Your task to perform on an android device: Search for macbook on target, select the first entry, add it to the cart, then select checkout. Image 0: 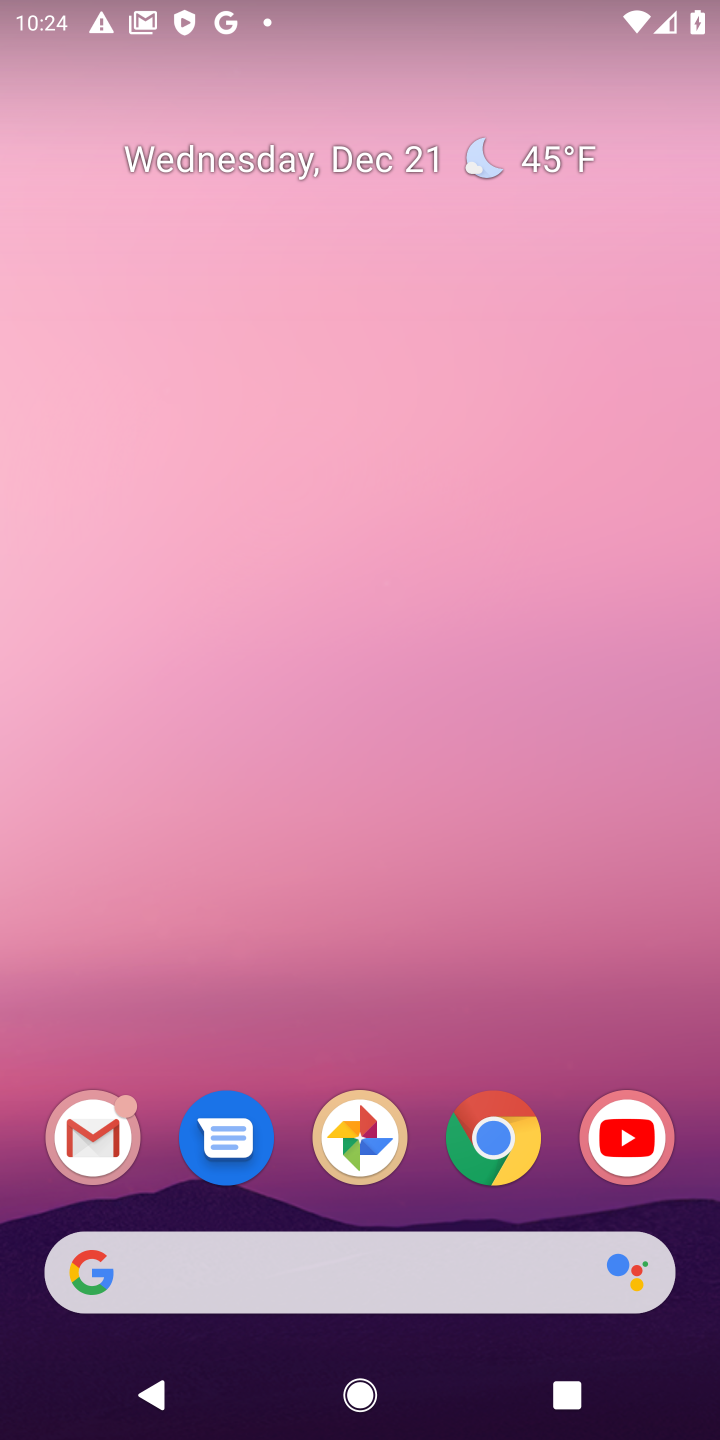
Step 0: click (489, 1152)
Your task to perform on an android device: Search for macbook on target, select the first entry, add it to the cart, then select checkout. Image 1: 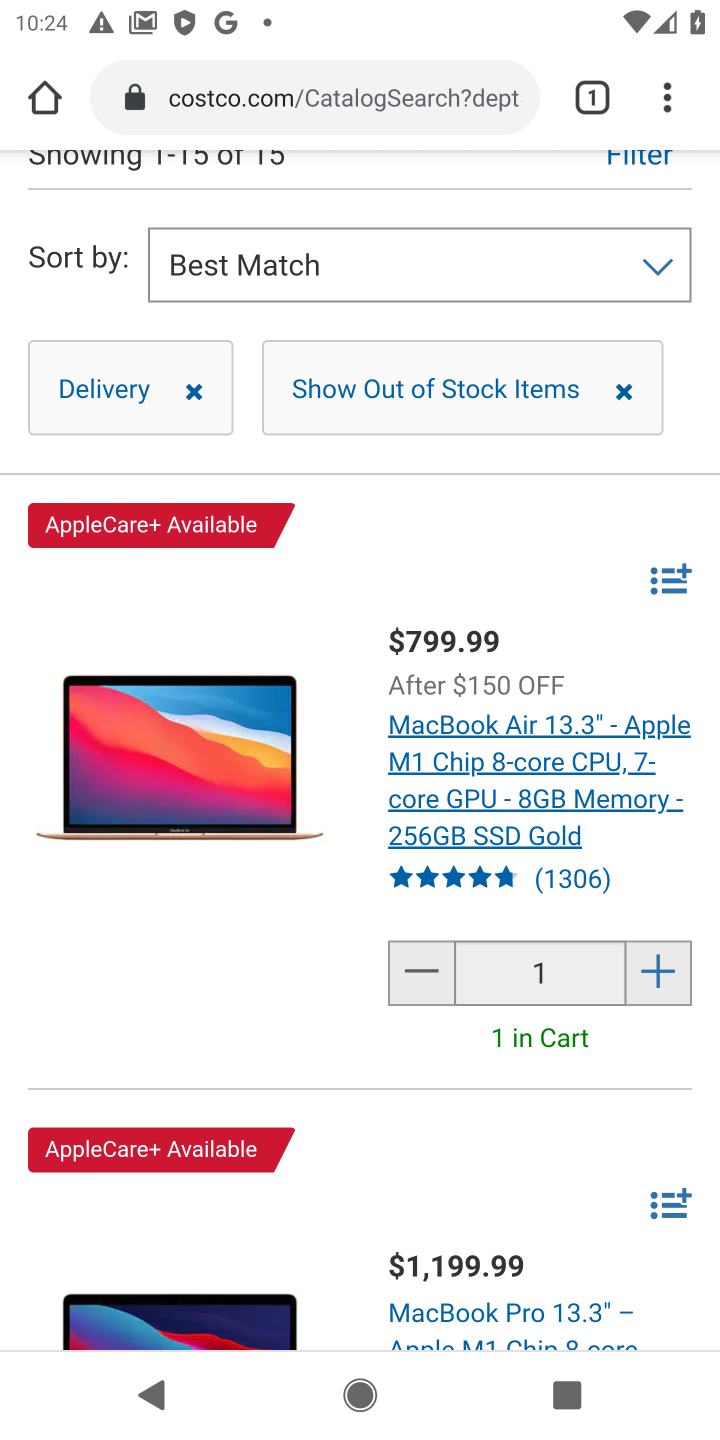
Step 1: click (255, 108)
Your task to perform on an android device: Search for macbook on target, select the first entry, add it to the cart, then select checkout. Image 2: 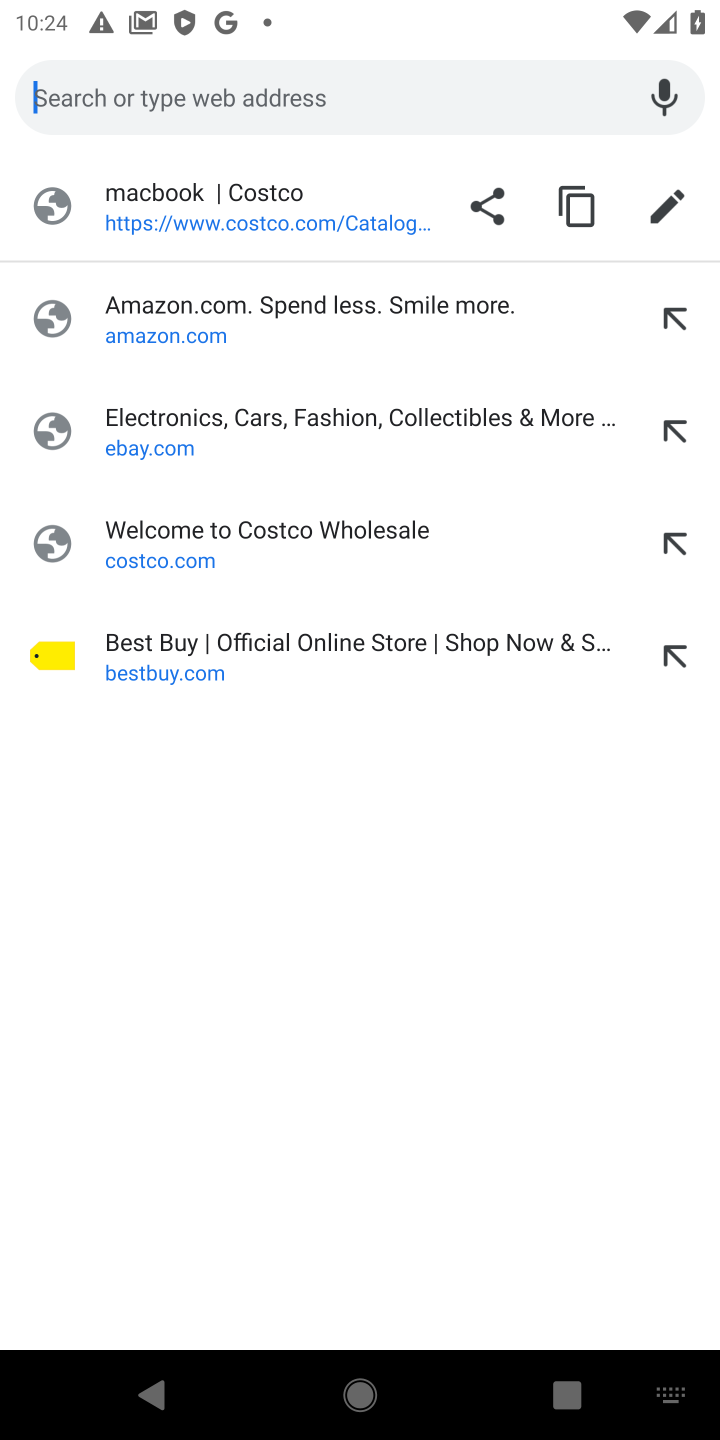
Step 2: click (181, 103)
Your task to perform on an android device: Search for macbook on target, select the first entry, add it to the cart, then select checkout. Image 3: 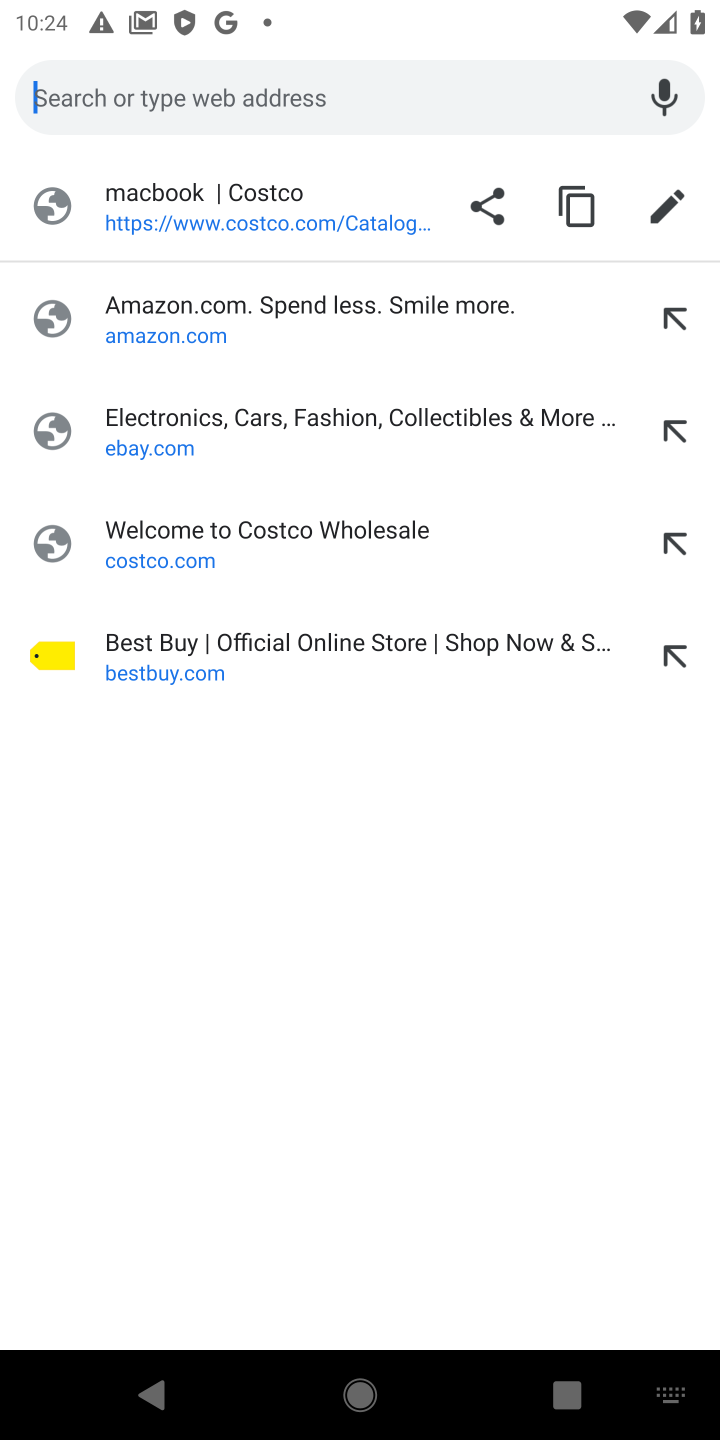
Step 3: type "target.com"
Your task to perform on an android device: Search for macbook on target, select the first entry, add it to the cart, then select checkout. Image 4: 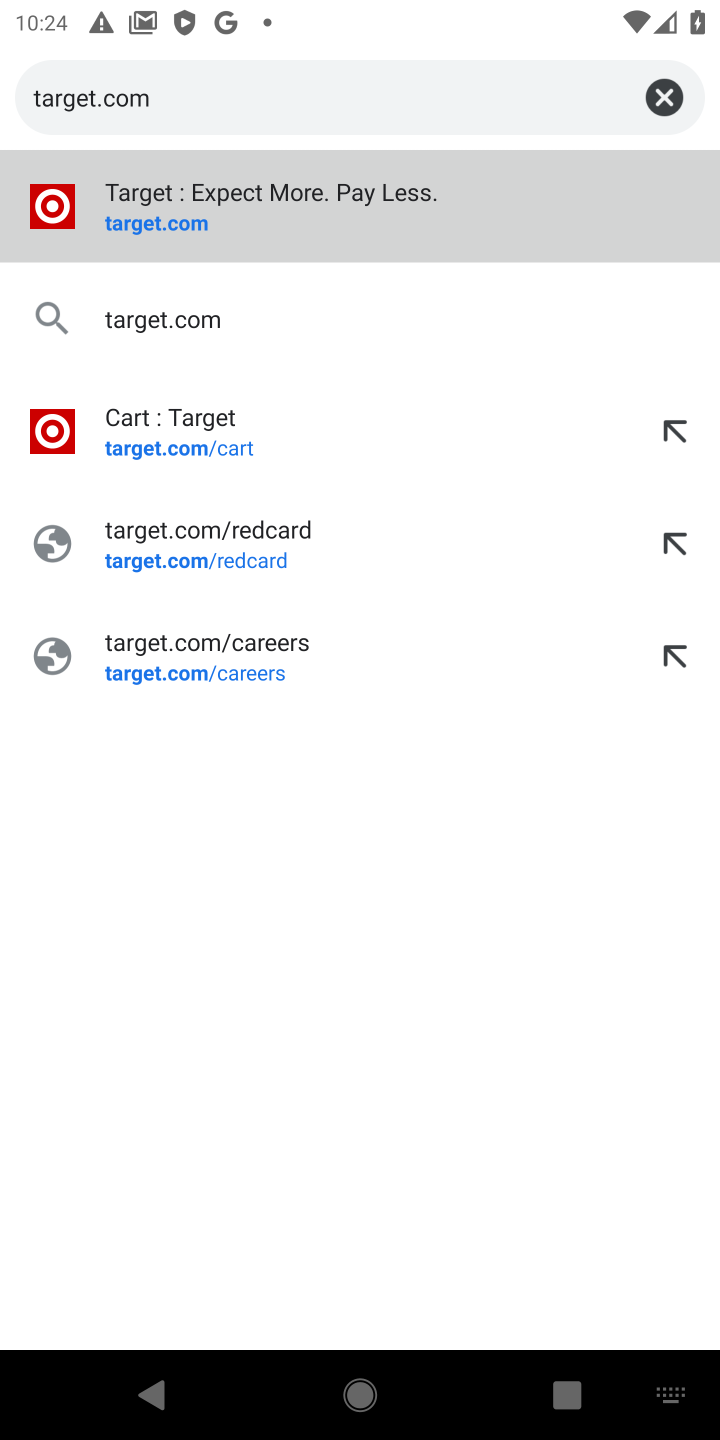
Step 4: click (144, 216)
Your task to perform on an android device: Search for macbook on target, select the first entry, add it to the cart, then select checkout. Image 5: 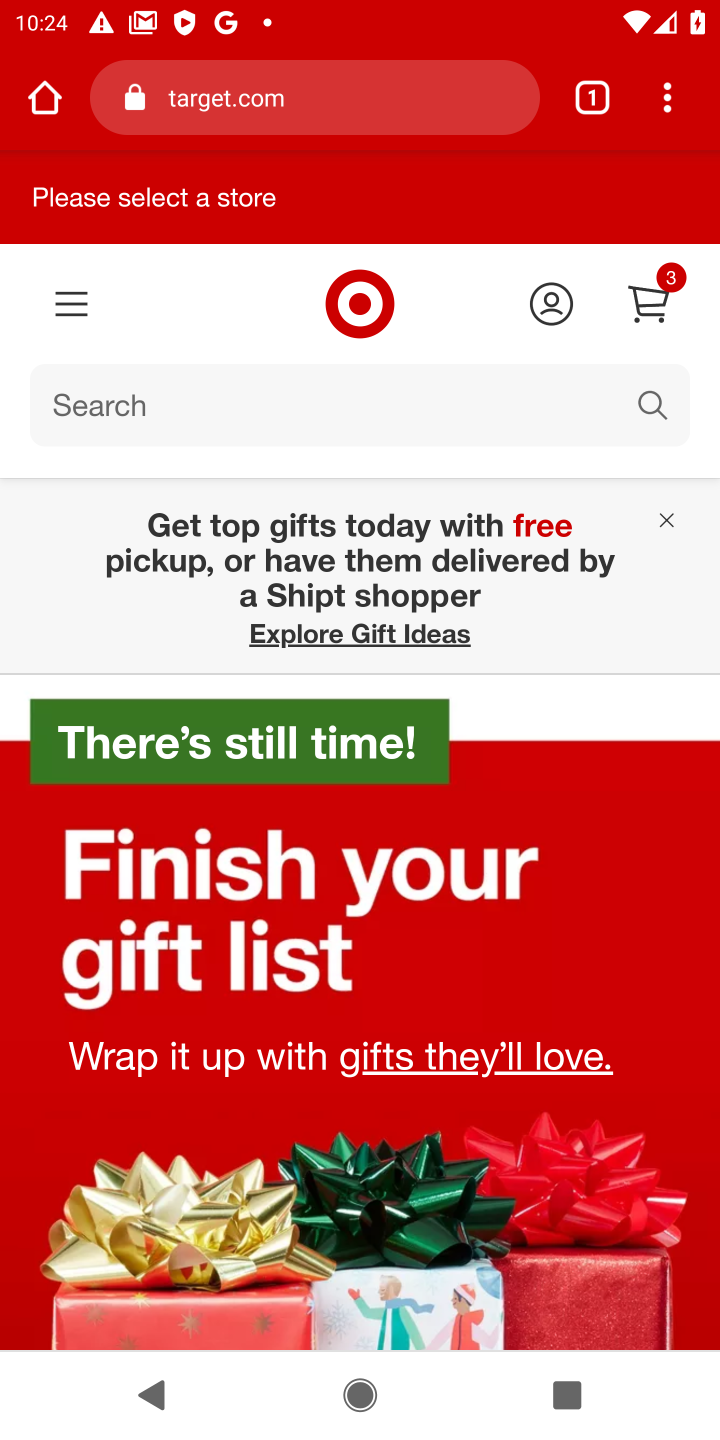
Step 5: click (98, 409)
Your task to perform on an android device: Search for macbook on target, select the first entry, add it to the cart, then select checkout. Image 6: 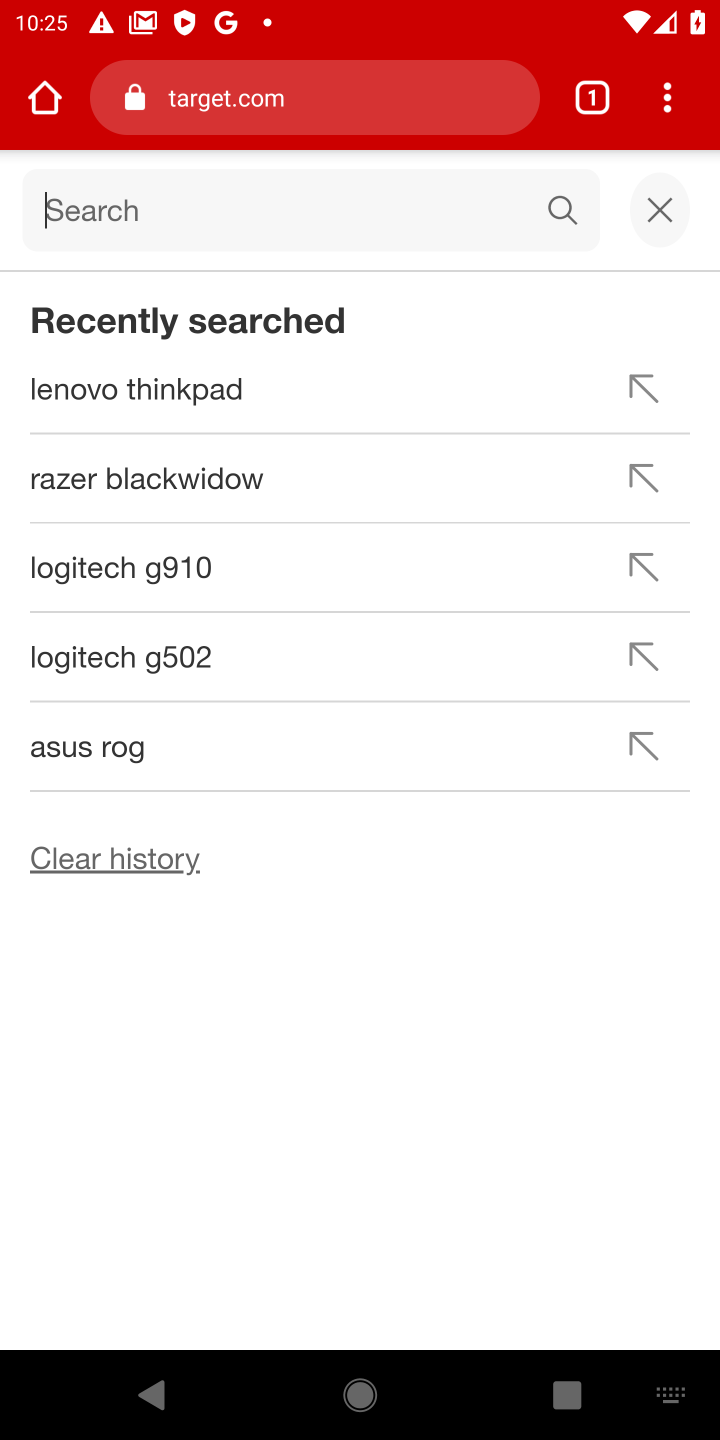
Step 6: type "macbook"
Your task to perform on an android device: Search for macbook on target, select the first entry, add it to the cart, then select checkout. Image 7: 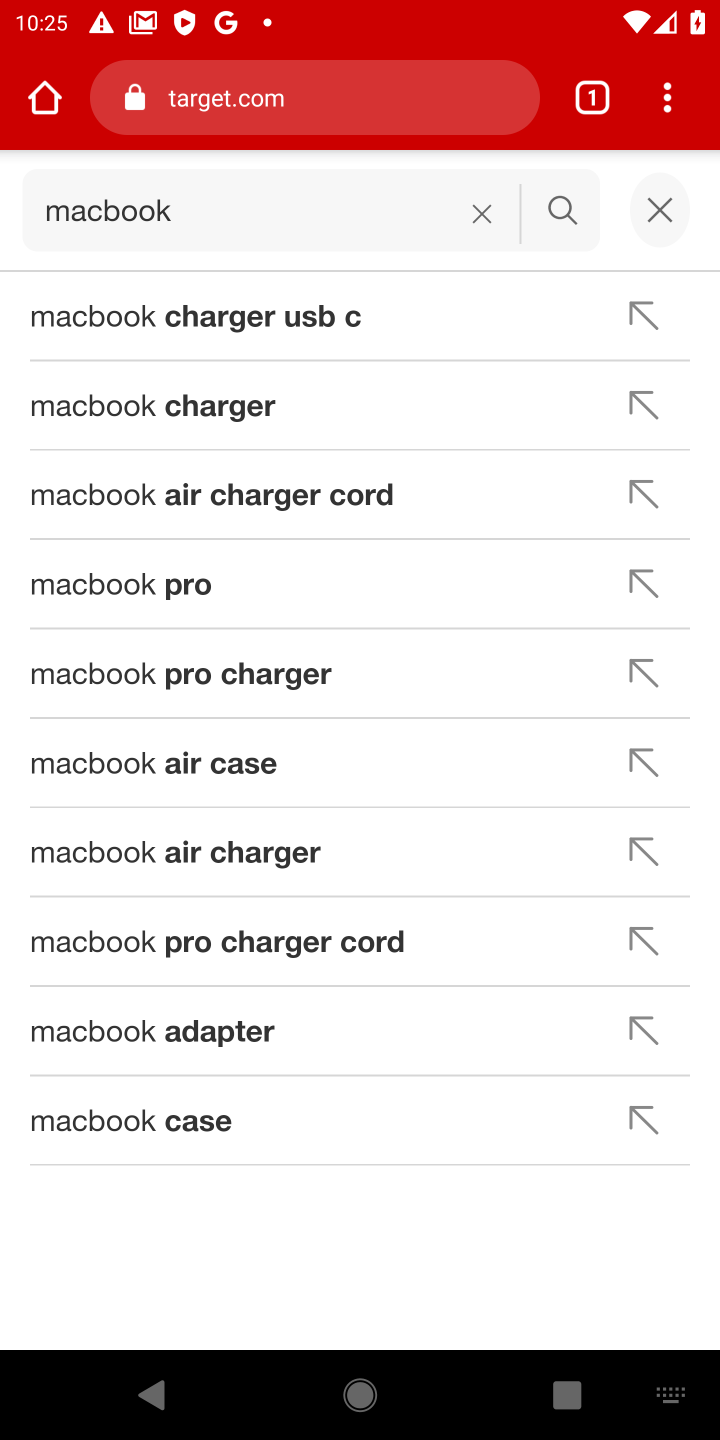
Step 7: click (569, 204)
Your task to perform on an android device: Search for macbook on target, select the first entry, add it to the cart, then select checkout. Image 8: 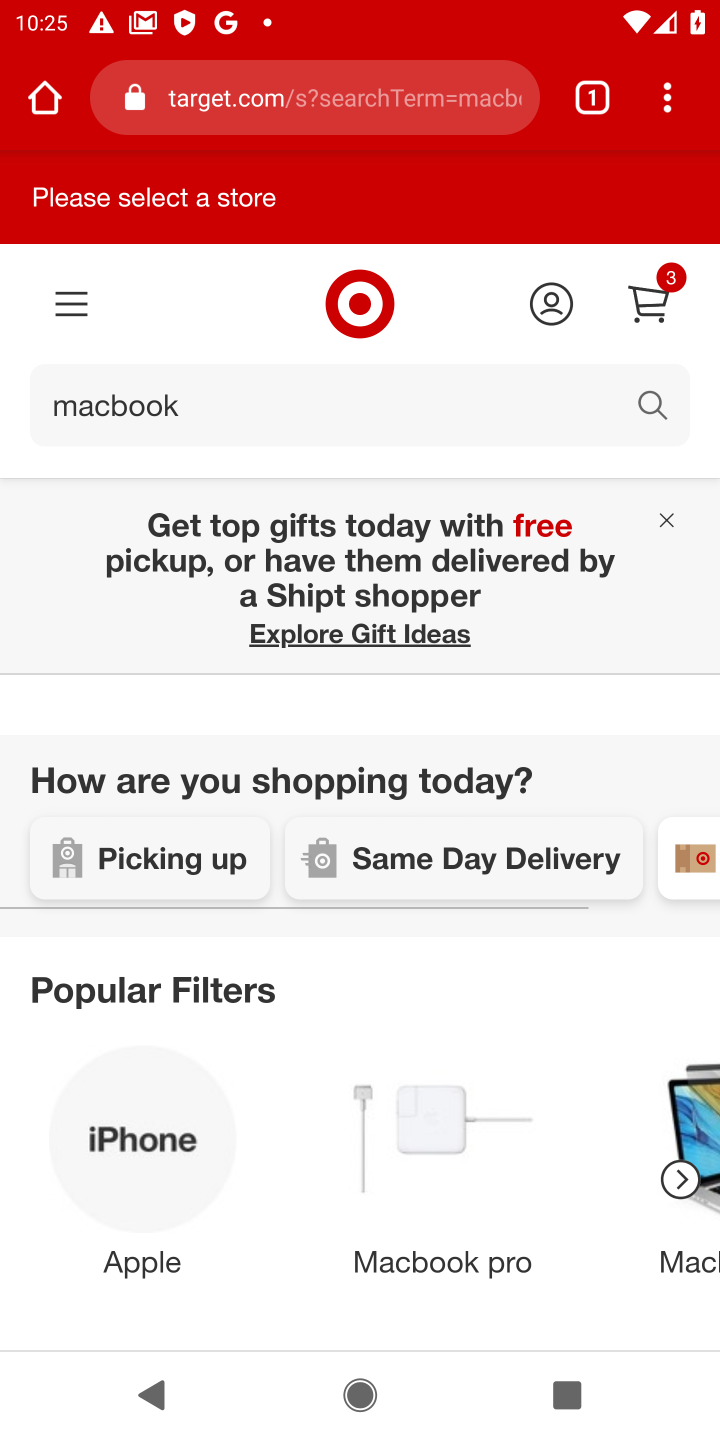
Step 8: drag from (287, 1027) to (307, 437)
Your task to perform on an android device: Search for macbook on target, select the first entry, add it to the cart, then select checkout. Image 9: 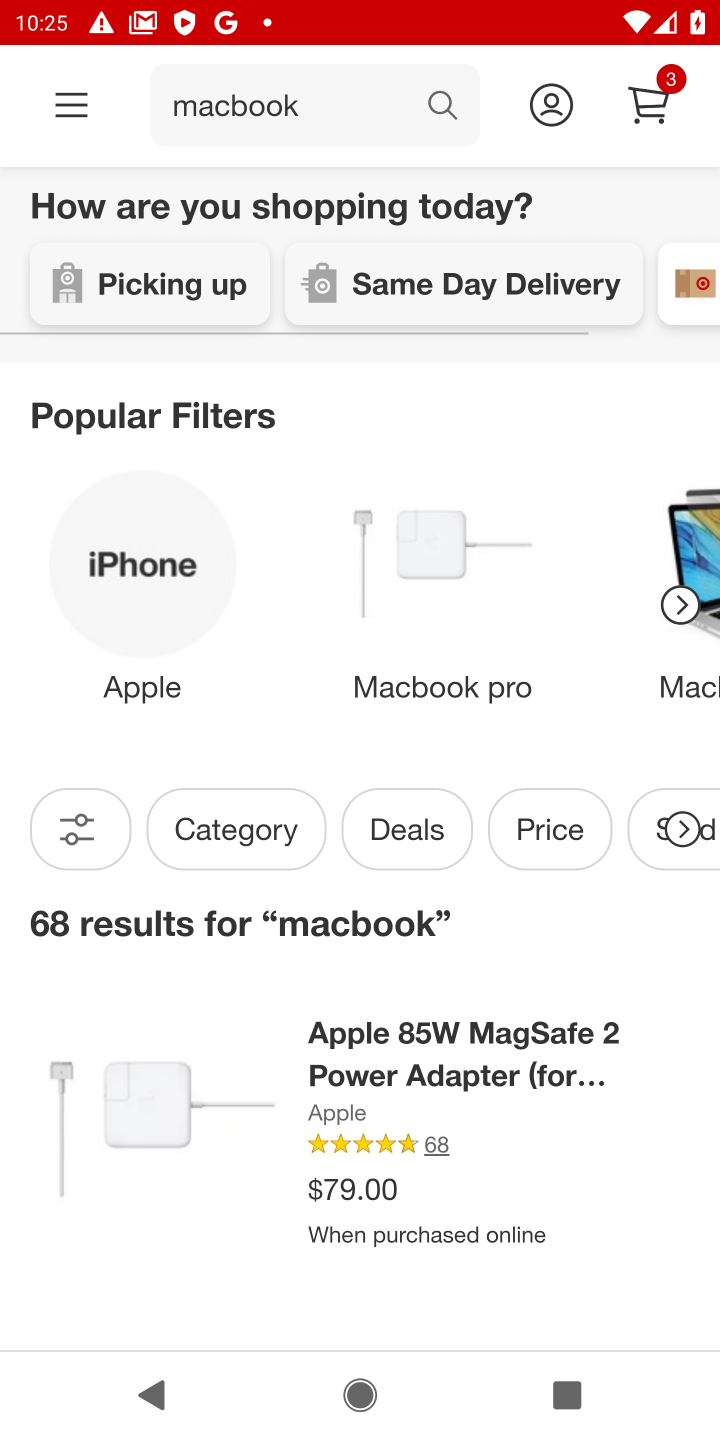
Step 9: drag from (254, 1023) to (258, 710)
Your task to perform on an android device: Search for macbook on target, select the first entry, add it to the cart, then select checkout. Image 10: 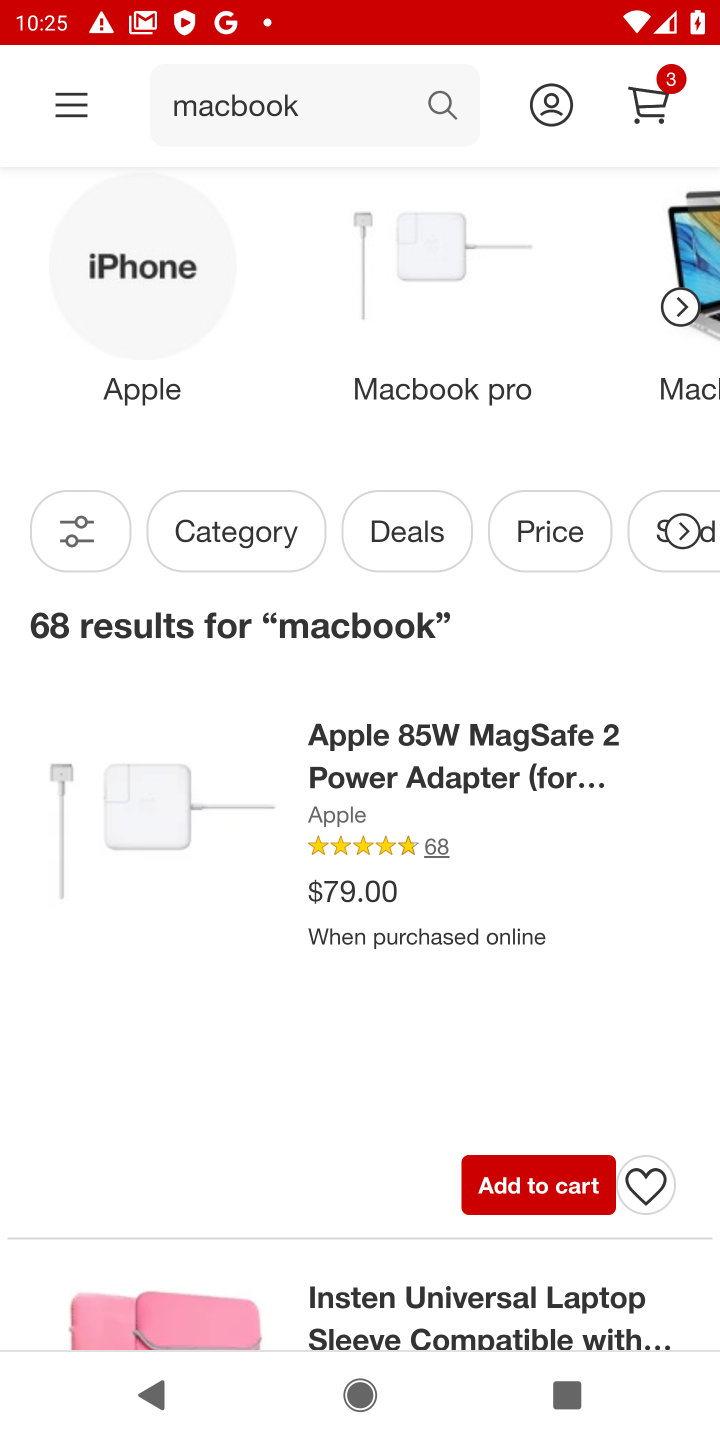
Step 10: click (409, 771)
Your task to perform on an android device: Search for macbook on target, select the first entry, add it to the cart, then select checkout. Image 11: 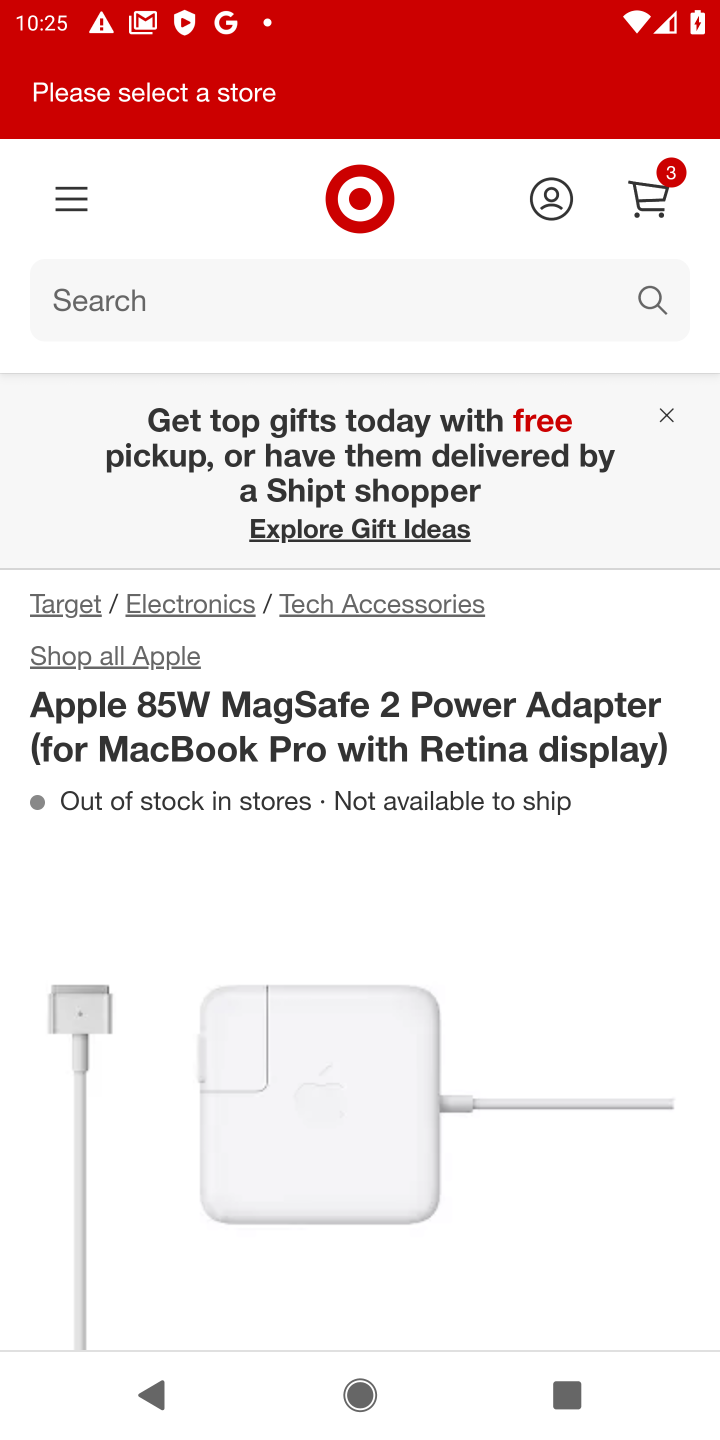
Step 11: drag from (314, 1041) to (337, 578)
Your task to perform on an android device: Search for macbook on target, select the first entry, add it to the cart, then select checkout. Image 12: 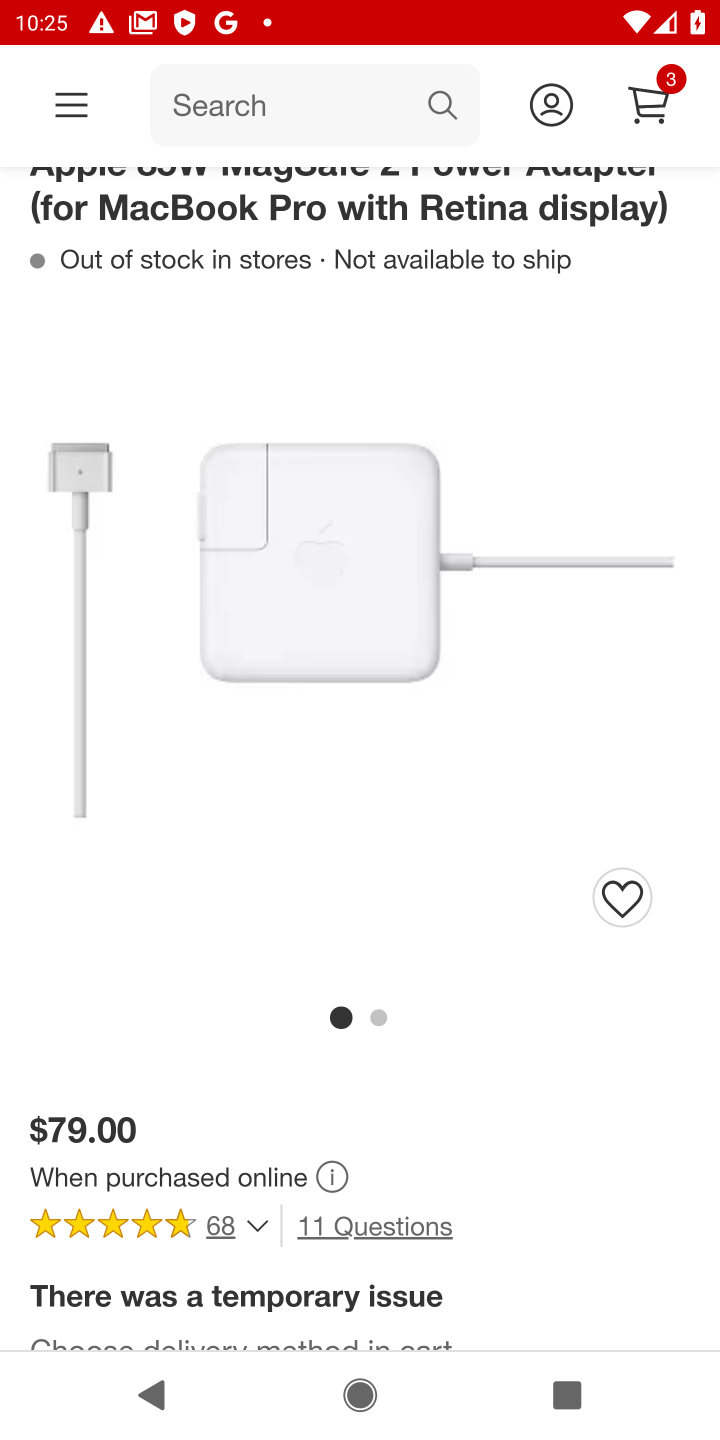
Step 12: drag from (327, 1068) to (342, 513)
Your task to perform on an android device: Search for macbook on target, select the first entry, add it to the cart, then select checkout. Image 13: 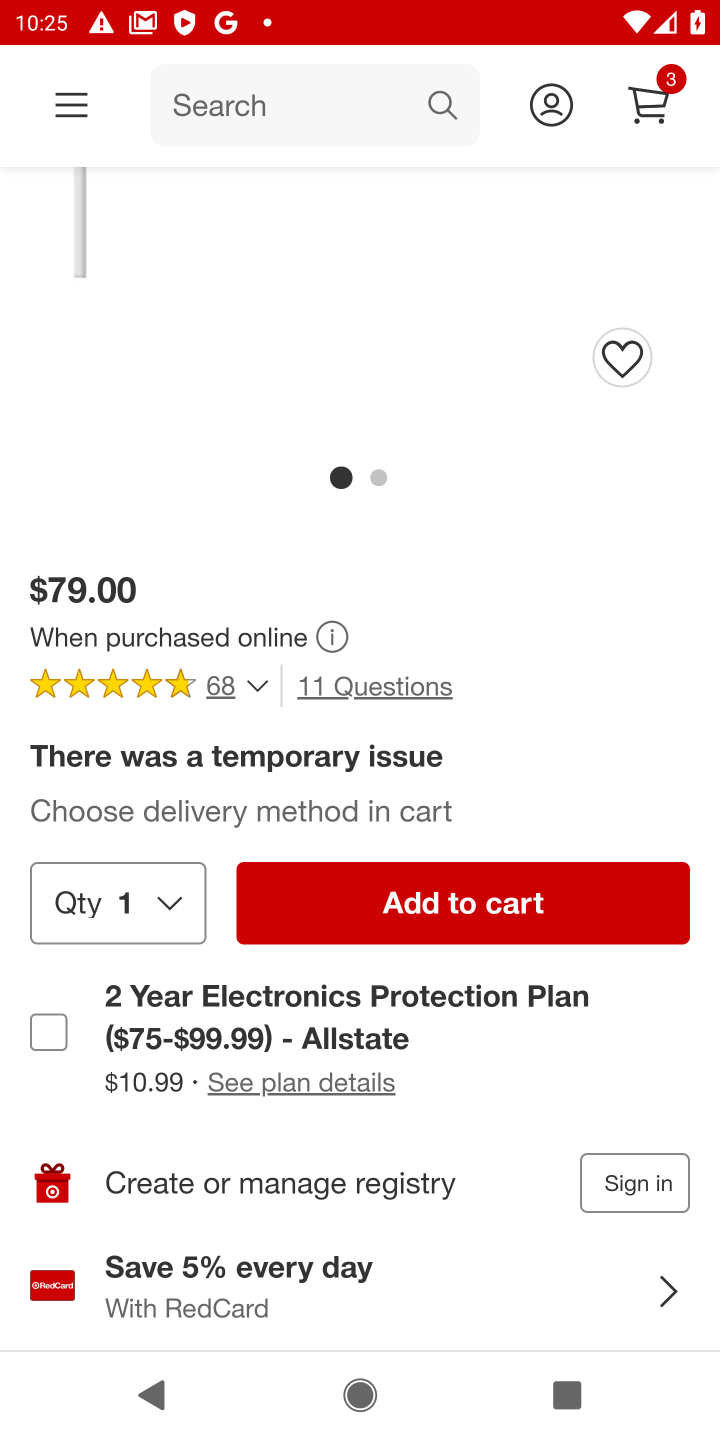
Step 13: click (419, 907)
Your task to perform on an android device: Search for macbook on target, select the first entry, add it to the cart, then select checkout. Image 14: 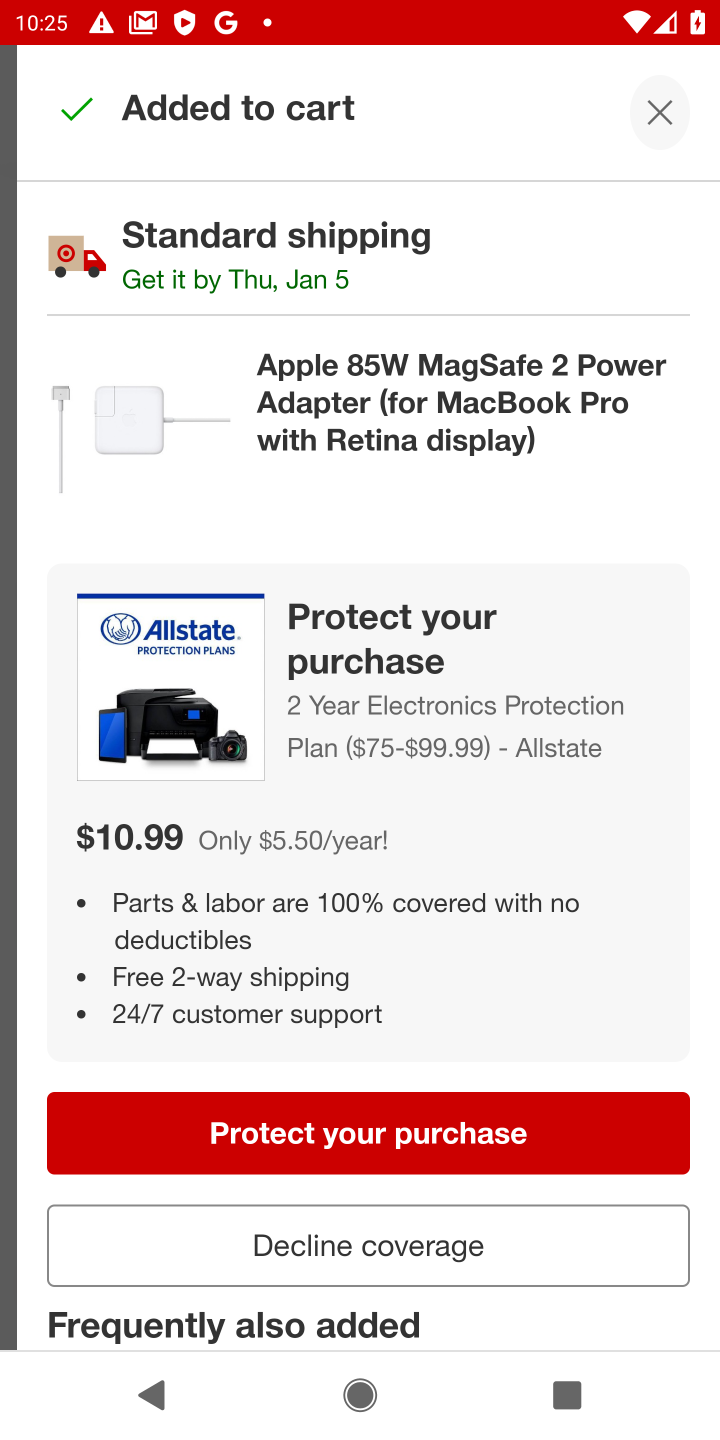
Step 14: click (667, 115)
Your task to perform on an android device: Search for macbook on target, select the first entry, add it to the cart, then select checkout. Image 15: 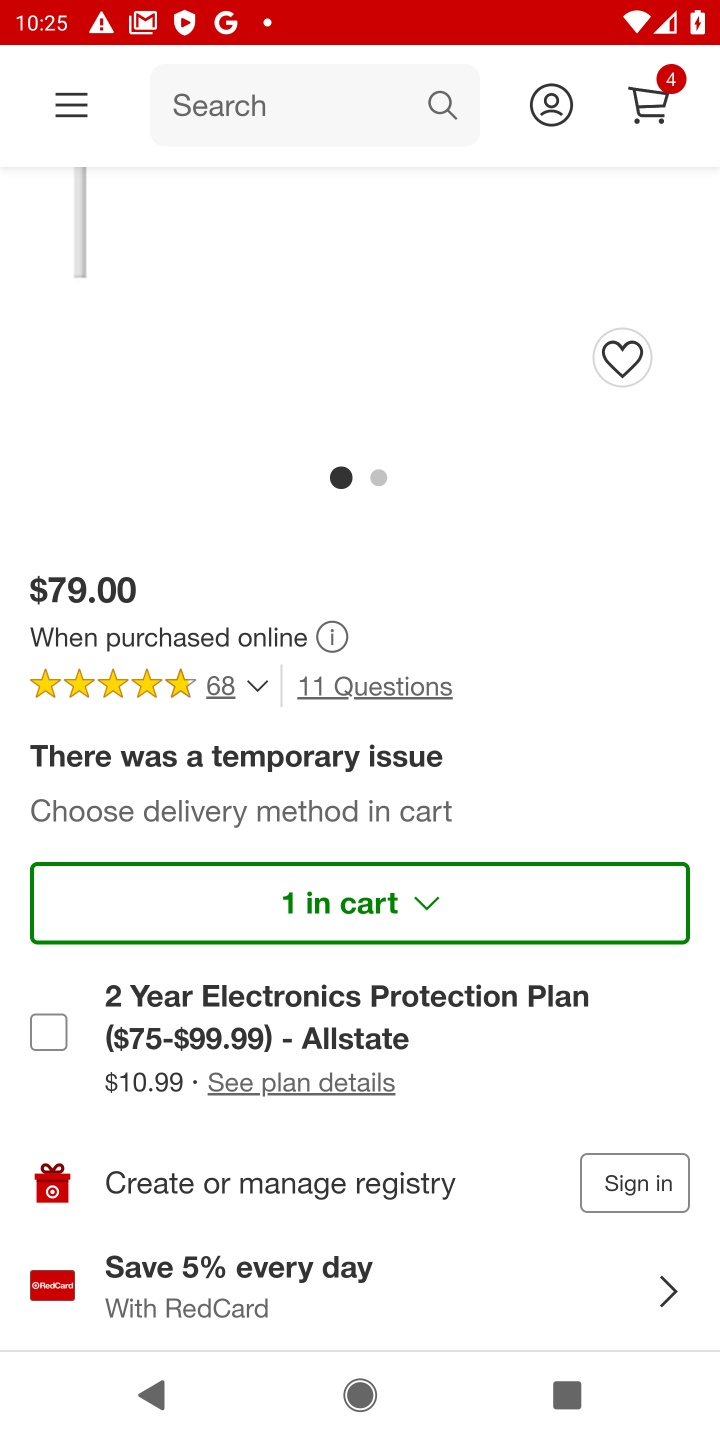
Step 15: click (651, 113)
Your task to perform on an android device: Search for macbook on target, select the first entry, add it to the cart, then select checkout. Image 16: 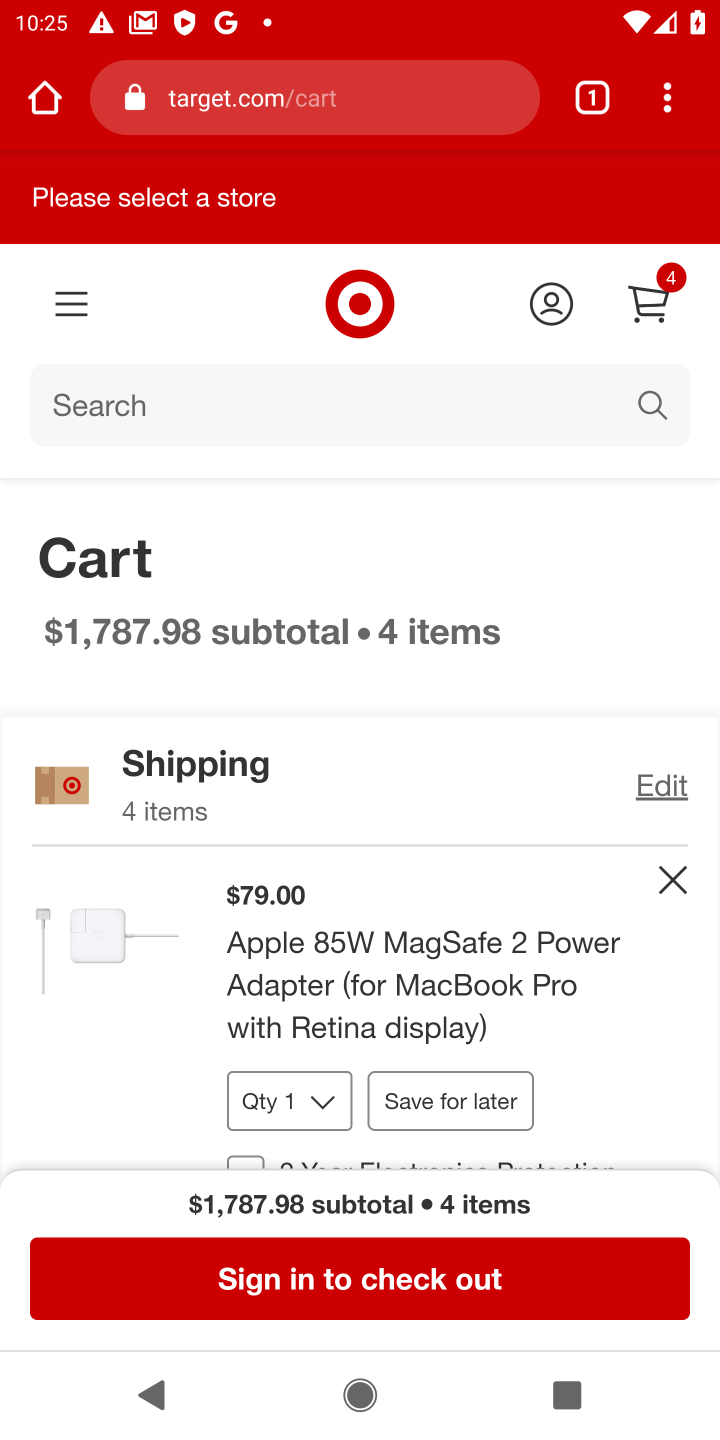
Step 16: click (398, 1274)
Your task to perform on an android device: Search for macbook on target, select the first entry, add it to the cart, then select checkout. Image 17: 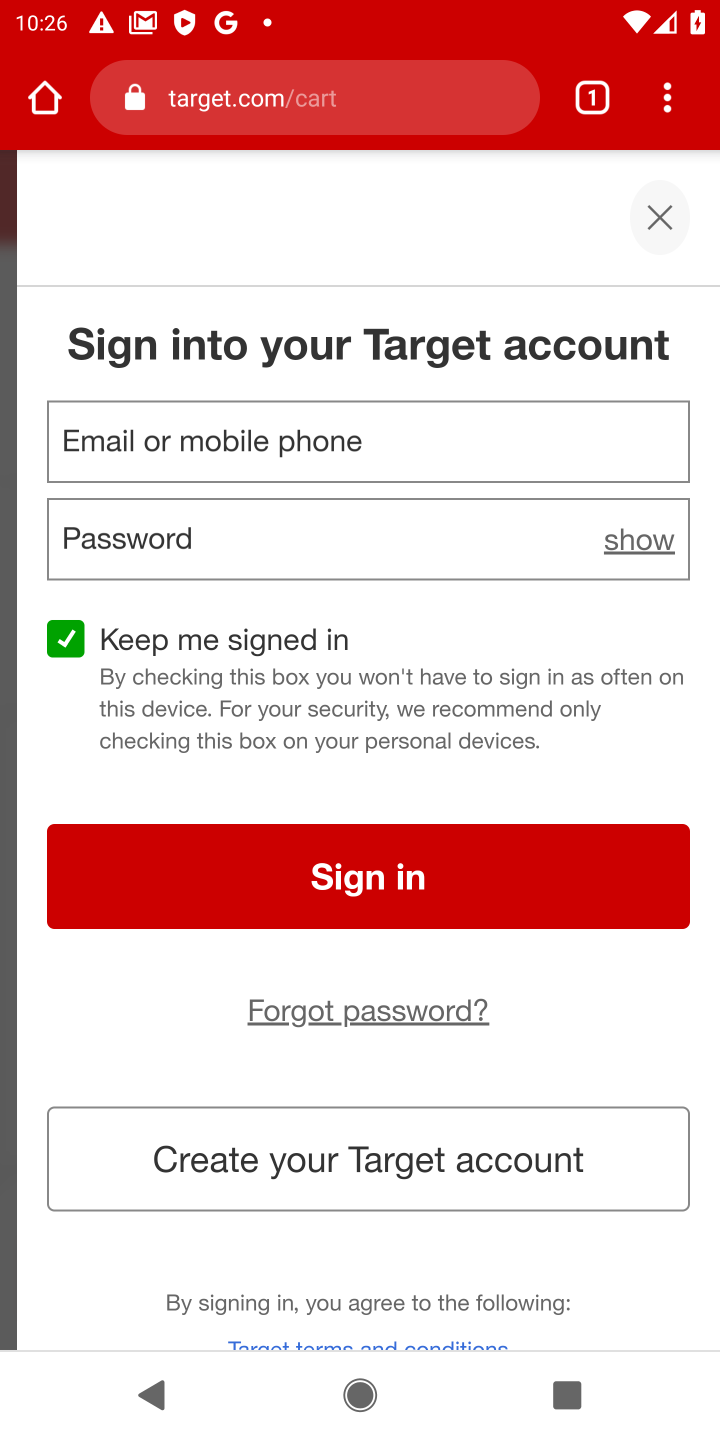
Step 17: task complete